Your task to perform on an android device: Open the calendar app, open the side menu, and click the "Day" option Image 0: 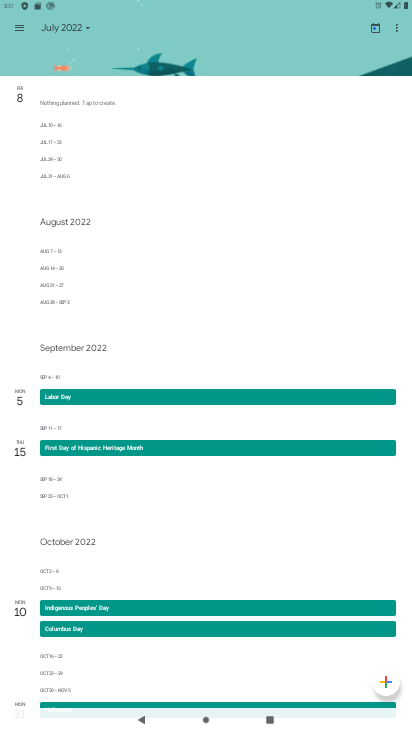
Step 0: press home button
Your task to perform on an android device: Open the calendar app, open the side menu, and click the "Day" option Image 1: 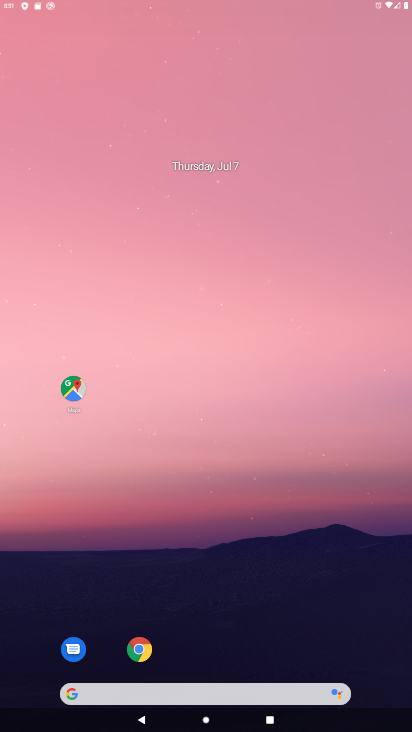
Step 1: drag from (151, 624) to (227, 127)
Your task to perform on an android device: Open the calendar app, open the side menu, and click the "Day" option Image 2: 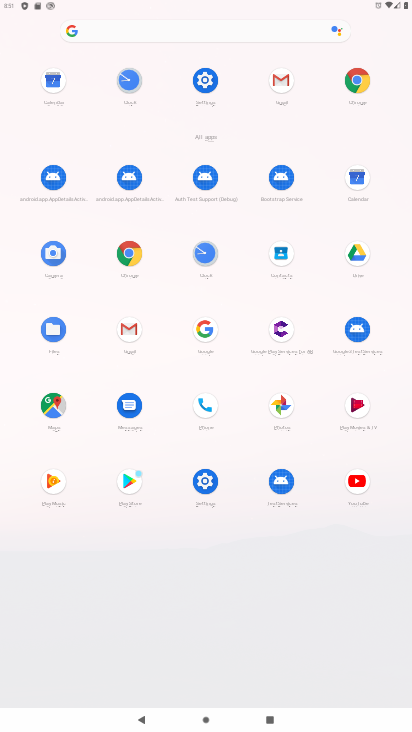
Step 2: click (360, 185)
Your task to perform on an android device: Open the calendar app, open the side menu, and click the "Day" option Image 3: 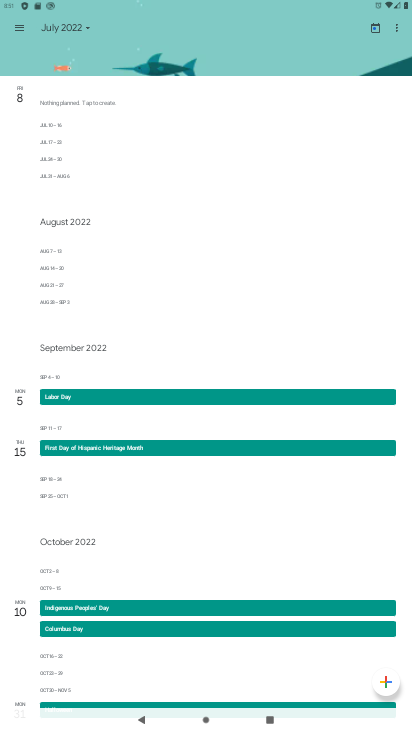
Step 3: click (11, 22)
Your task to perform on an android device: Open the calendar app, open the side menu, and click the "Day" option Image 4: 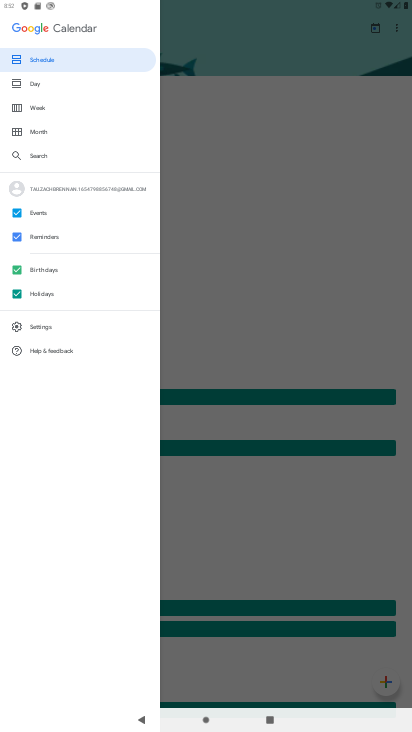
Step 4: click (28, 78)
Your task to perform on an android device: Open the calendar app, open the side menu, and click the "Day" option Image 5: 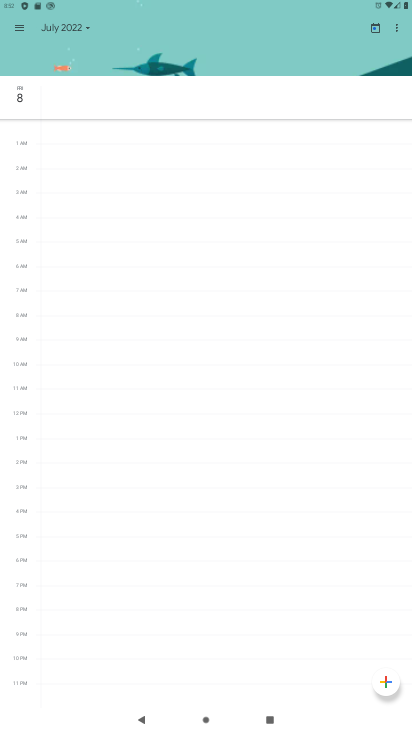
Step 5: task complete